Your task to perform on an android device: Go to Reddit.com Image 0: 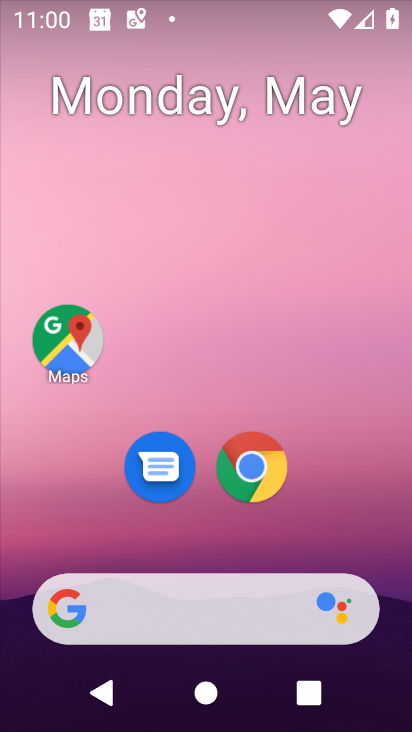
Step 0: drag from (396, 585) to (251, 21)
Your task to perform on an android device: Go to Reddit.com Image 1: 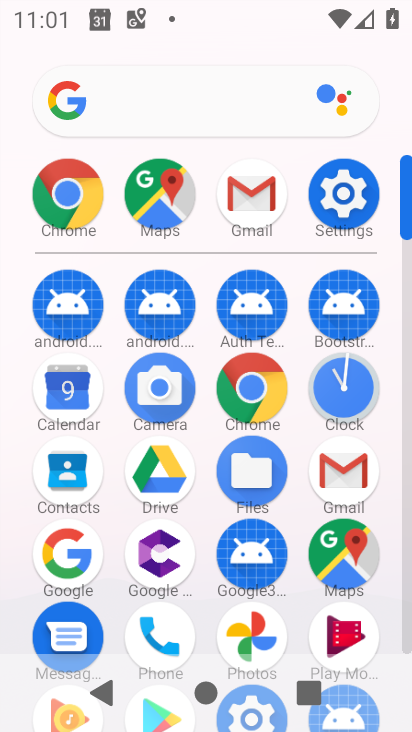
Step 1: click (66, 191)
Your task to perform on an android device: Go to Reddit.com Image 2: 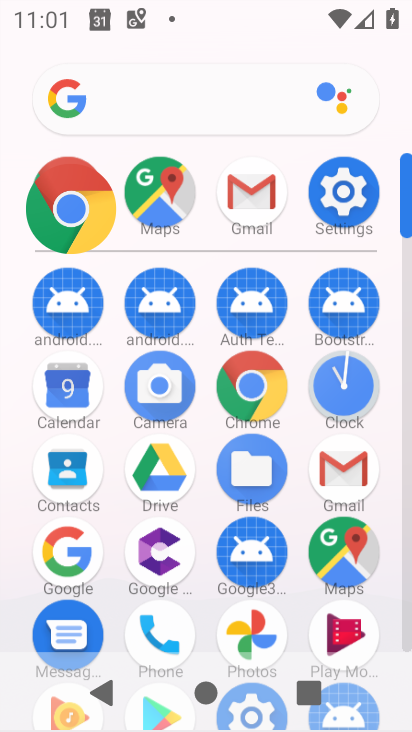
Step 2: click (65, 194)
Your task to perform on an android device: Go to Reddit.com Image 3: 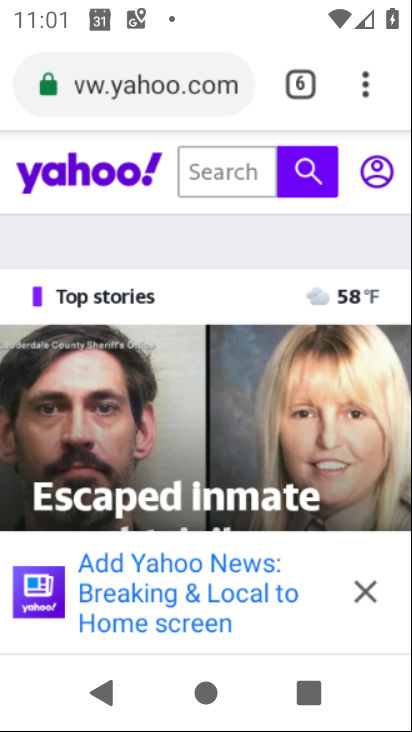
Step 3: click (65, 194)
Your task to perform on an android device: Go to Reddit.com Image 4: 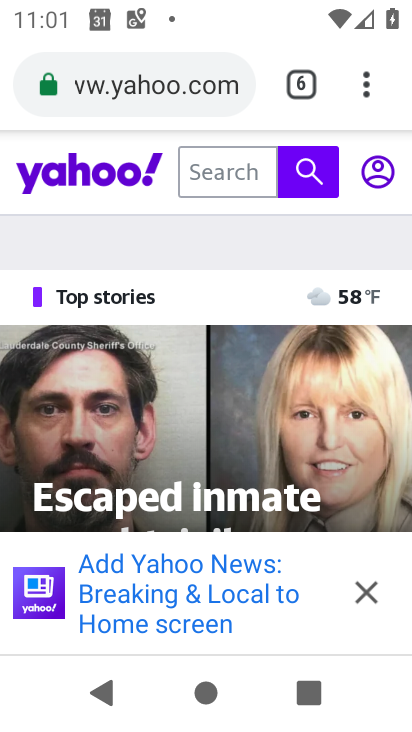
Step 4: drag from (363, 89) to (73, 164)
Your task to perform on an android device: Go to Reddit.com Image 5: 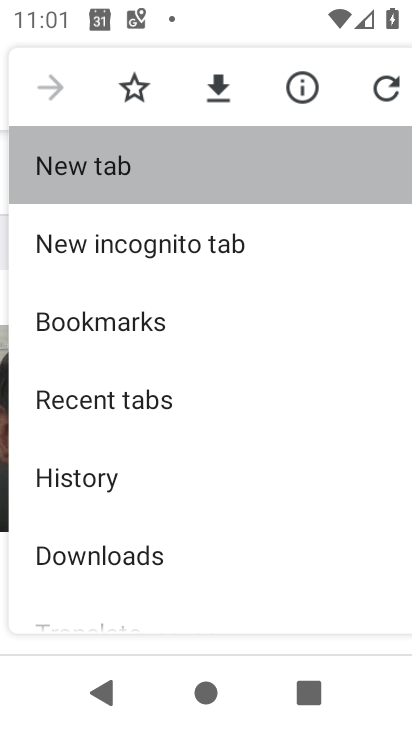
Step 5: click (65, 154)
Your task to perform on an android device: Go to Reddit.com Image 6: 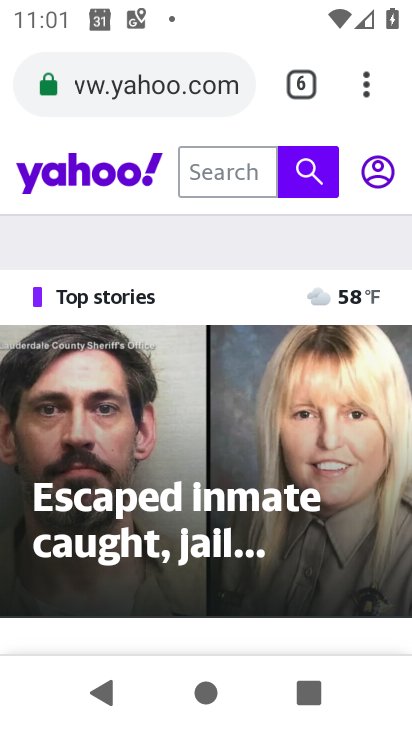
Step 6: click (48, 158)
Your task to perform on an android device: Go to Reddit.com Image 7: 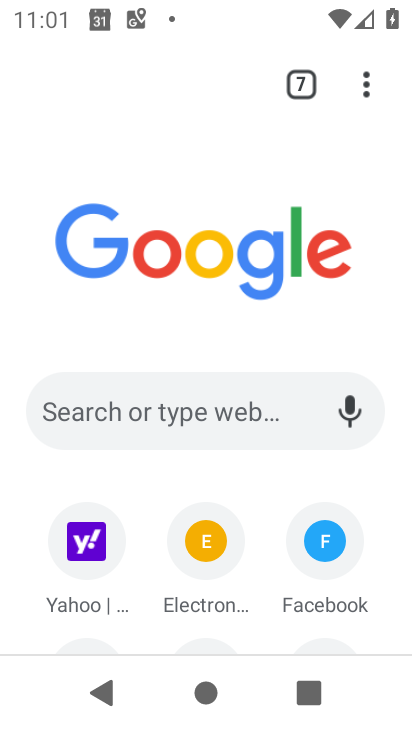
Step 7: click (82, 404)
Your task to perform on an android device: Go to Reddit.com Image 8: 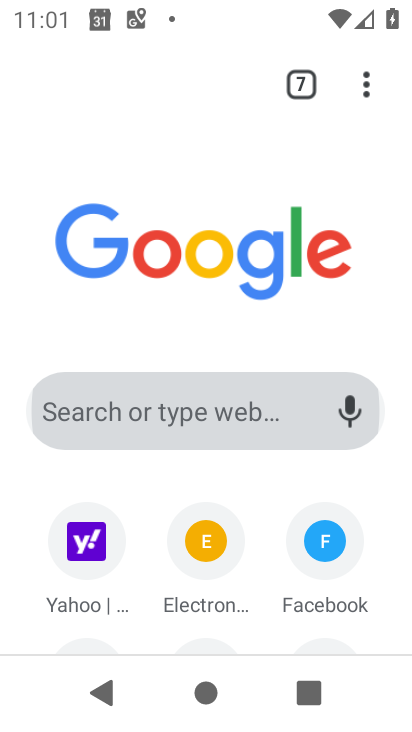
Step 8: click (83, 404)
Your task to perform on an android device: Go to Reddit.com Image 9: 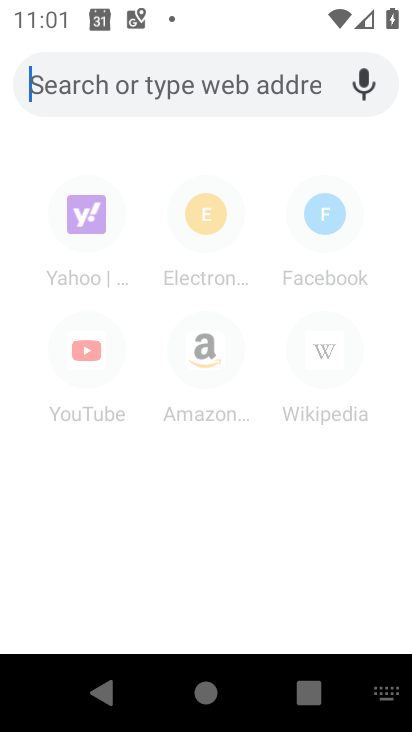
Step 9: type "reddit.com"
Your task to perform on an android device: Go to Reddit.com Image 10: 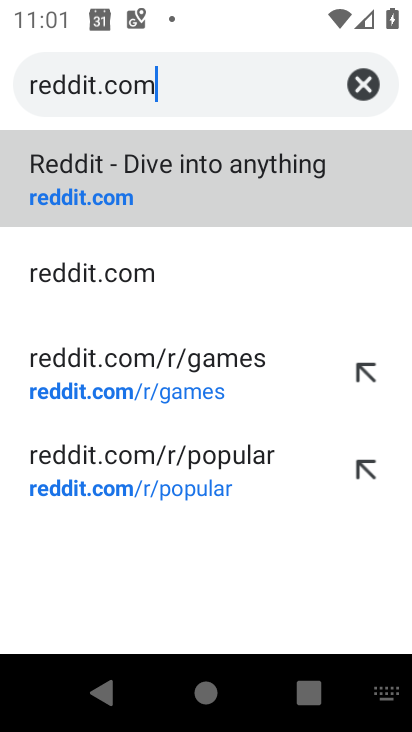
Step 10: click (42, 212)
Your task to perform on an android device: Go to Reddit.com Image 11: 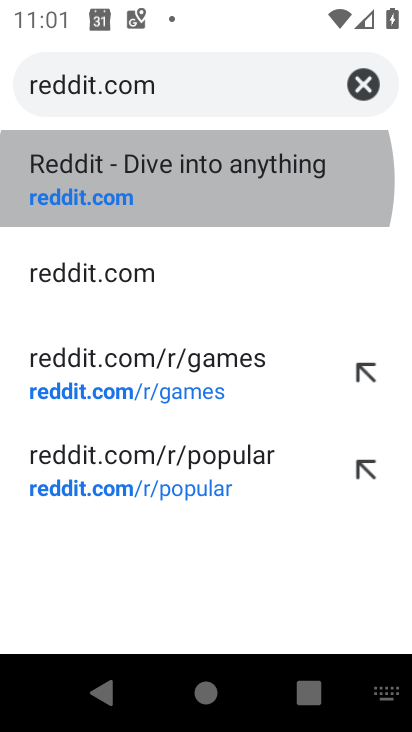
Step 11: click (46, 209)
Your task to perform on an android device: Go to Reddit.com Image 12: 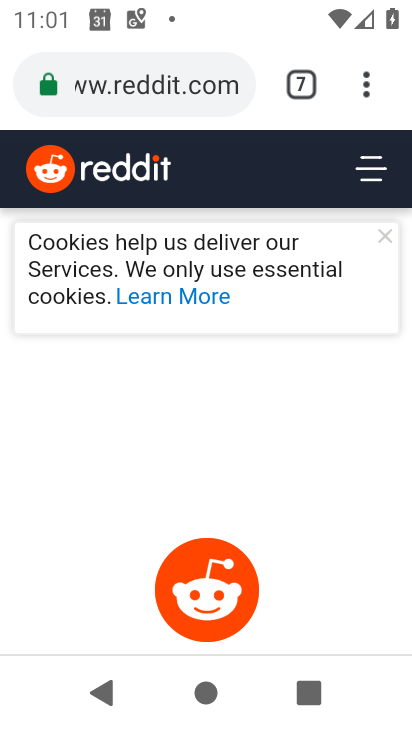
Step 12: task complete